Your task to perform on an android device: find photos in the google photos app Image 0: 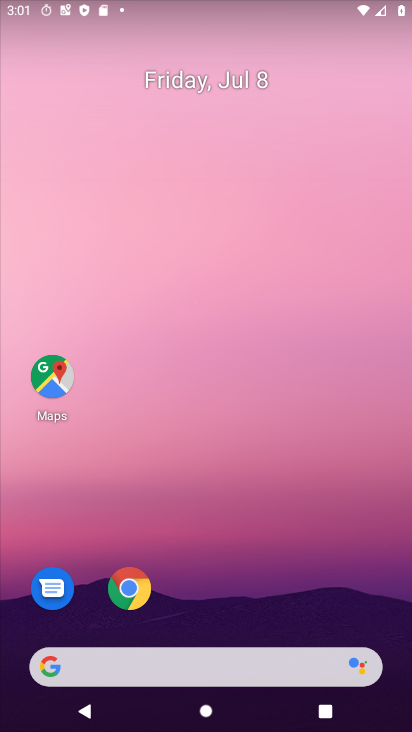
Step 0: press home button
Your task to perform on an android device: find photos in the google photos app Image 1: 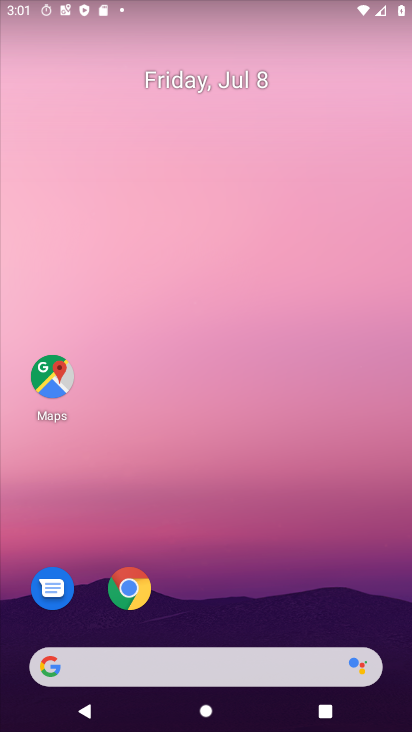
Step 1: drag from (211, 604) to (207, 102)
Your task to perform on an android device: find photos in the google photos app Image 2: 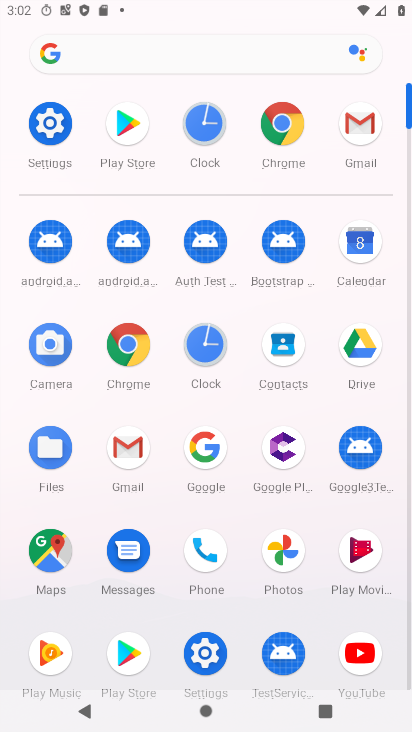
Step 2: click (291, 547)
Your task to perform on an android device: find photos in the google photos app Image 3: 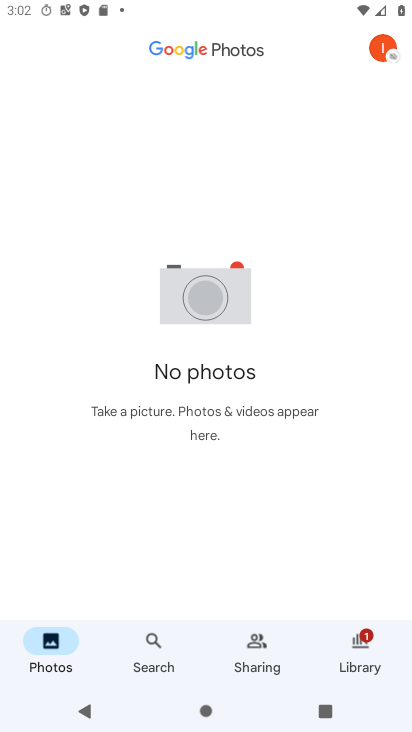
Step 3: click (51, 647)
Your task to perform on an android device: find photos in the google photos app Image 4: 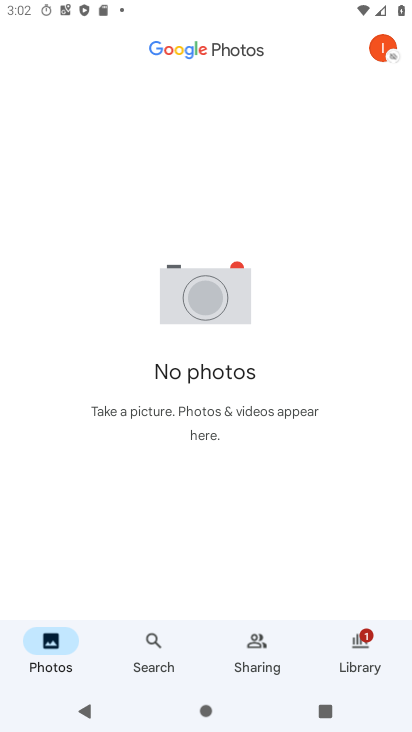
Step 4: task complete